Your task to perform on an android device: open a bookmark in the chrome app Image 0: 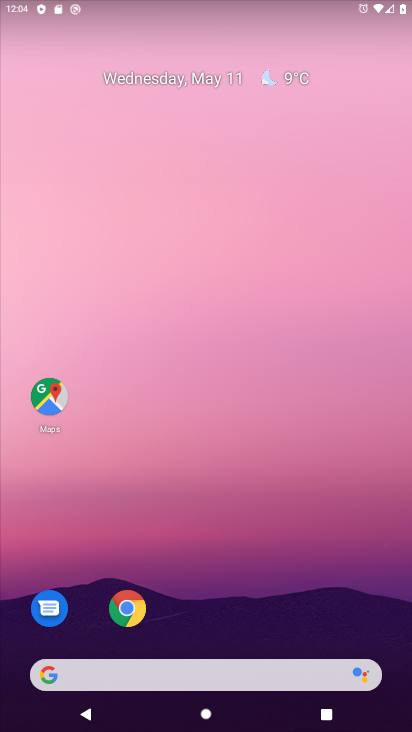
Step 0: click (136, 610)
Your task to perform on an android device: open a bookmark in the chrome app Image 1: 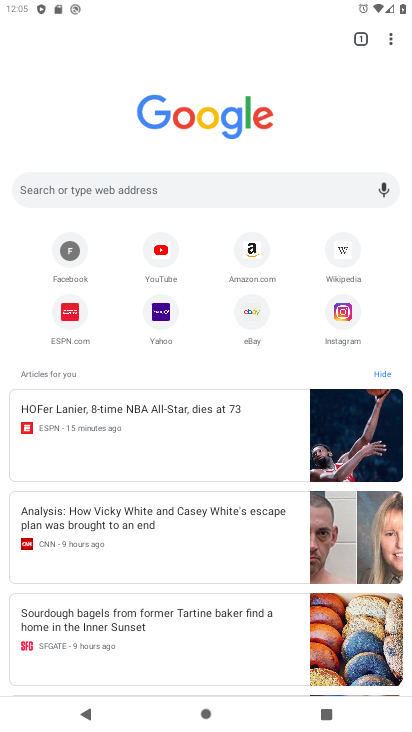
Step 1: click (389, 32)
Your task to perform on an android device: open a bookmark in the chrome app Image 2: 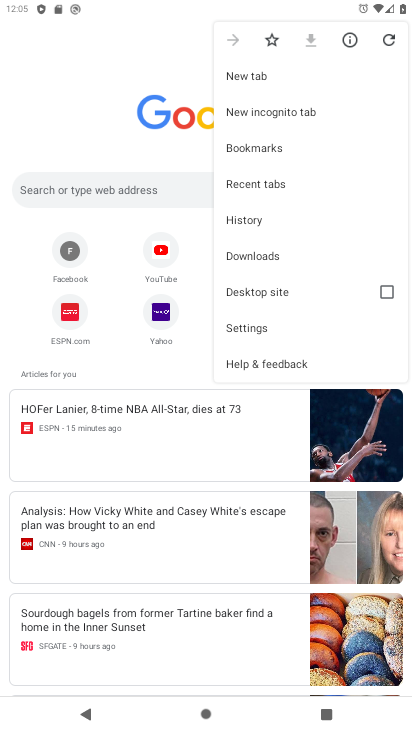
Step 2: click (256, 330)
Your task to perform on an android device: open a bookmark in the chrome app Image 3: 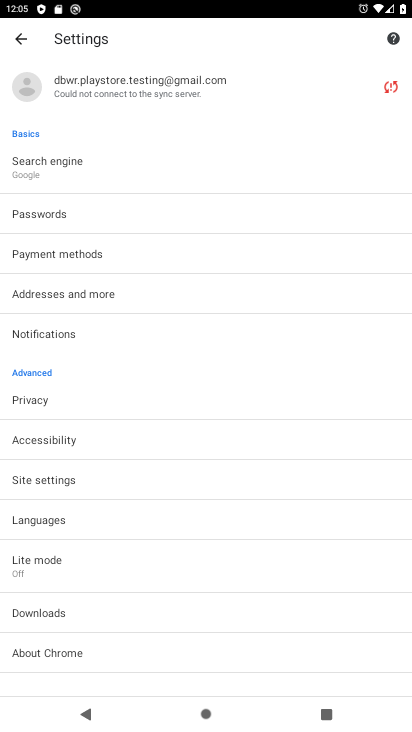
Step 3: drag from (60, 473) to (90, 270)
Your task to perform on an android device: open a bookmark in the chrome app Image 4: 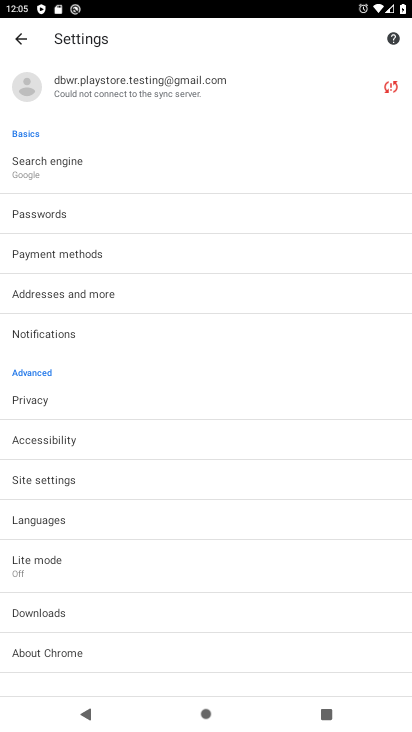
Step 4: click (23, 39)
Your task to perform on an android device: open a bookmark in the chrome app Image 5: 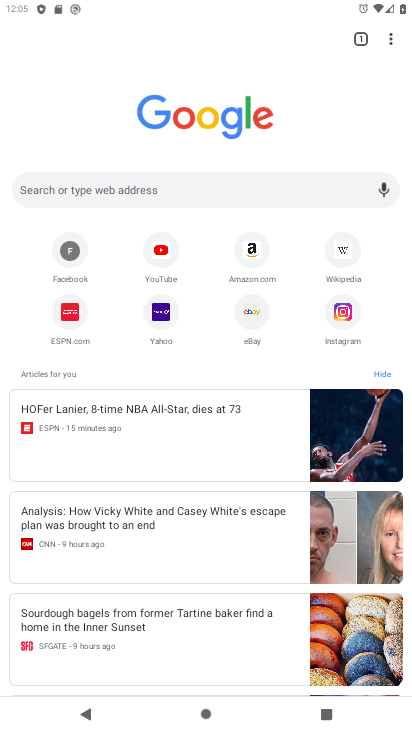
Step 5: click (388, 43)
Your task to perform on an android device: open a bookmark in the chrome app Image 6: 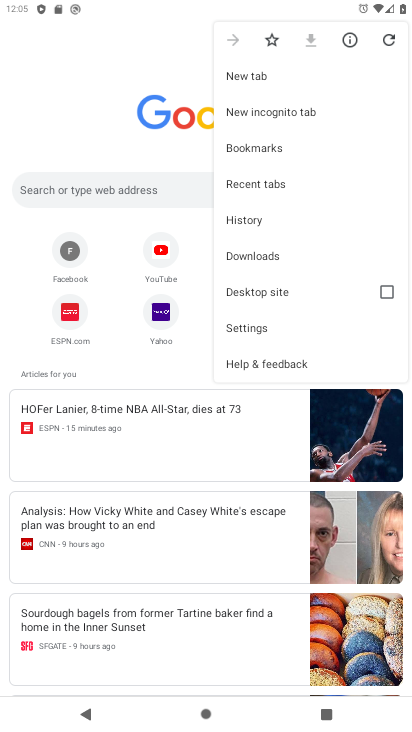
Step 6: click (279, 149)
Your task to perform on an android device: open a bookmark in the chrome app Image 7: 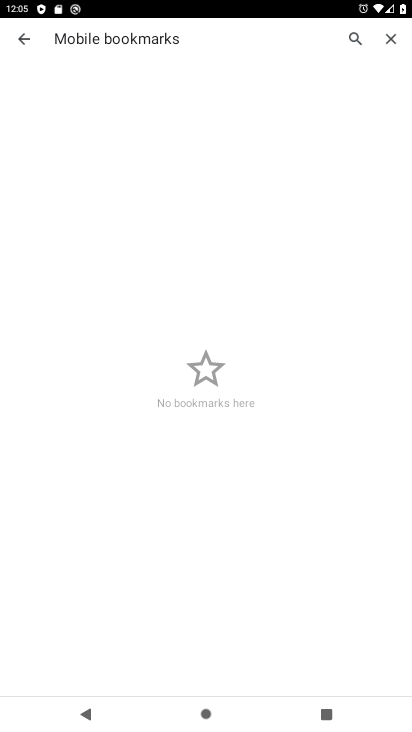
Step 7: task complete